Your task to perform on an android device: Open privacy settings Image 0: 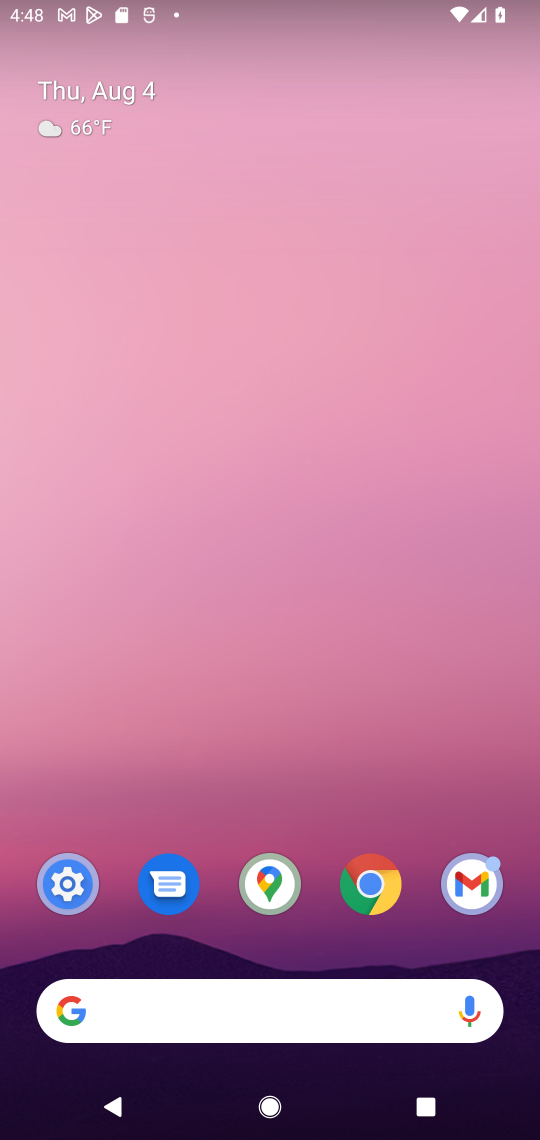
Step 0: click (59, 907)
Your task to perform on an android device: Open privacy settings Image 1: 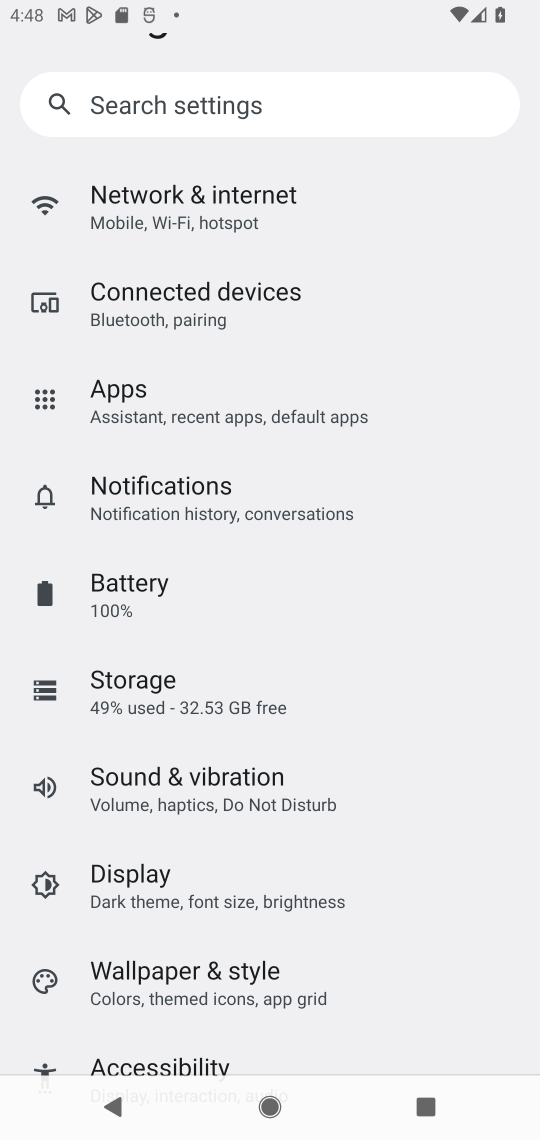
Step 1: drag from (277, 785) to (308, 487)
Your task to perform on an android device: Open privacy settings Image 2: 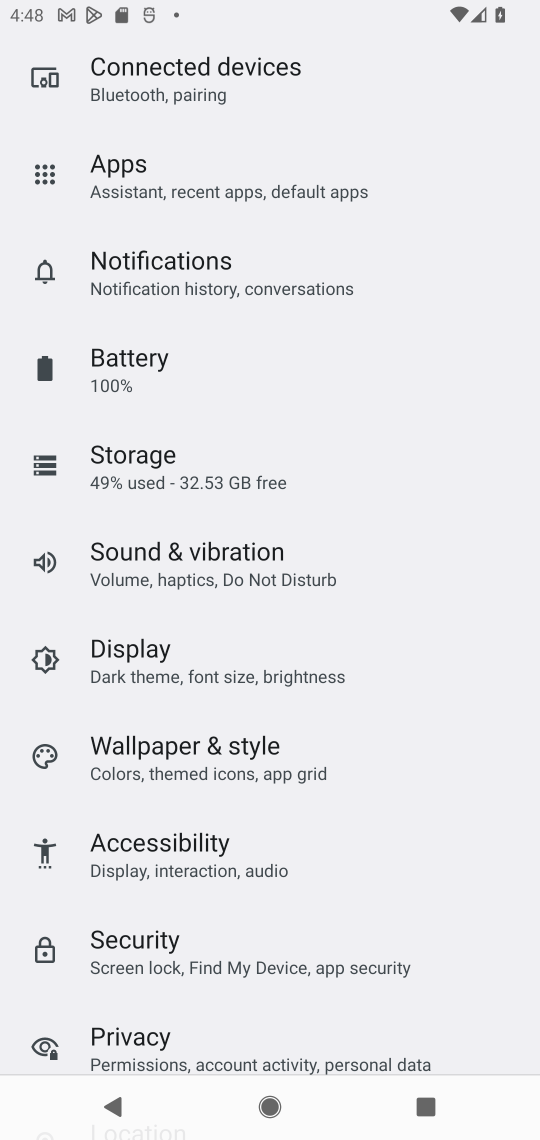
Step 2: click (254, 1019)
Your task to perform on an android device: Open privacy settings Image 3: 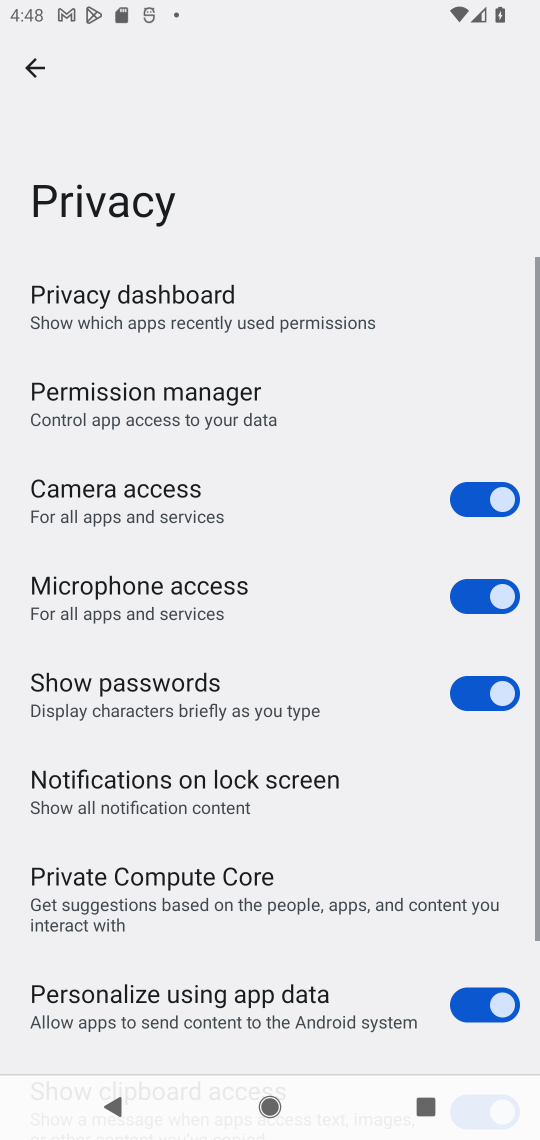
Step 3: task complete